Your task to perform on an android device: Do I have any events tomorrow? Image 0: 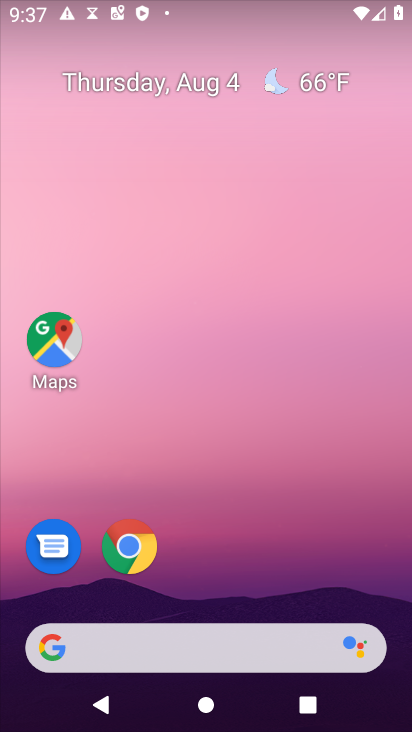
Step 0: press home button
Your task to perform on an android device: Do I have any events tomorrow? Image 1: 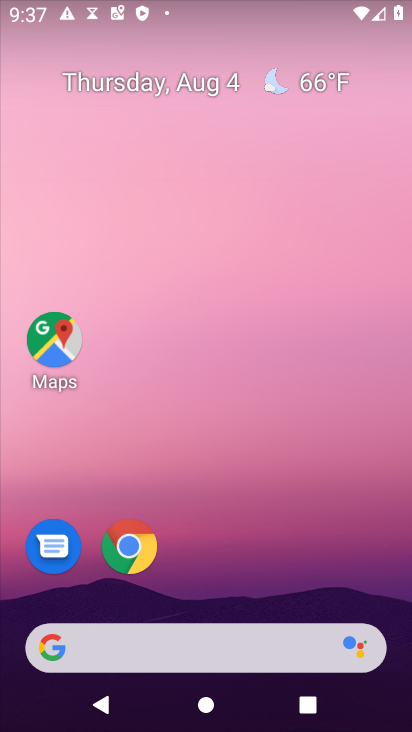
Step 1: drag from (288, 593) to (388, 34)
Your task to perform on an android device: Do I have any events tomorrow? Image 2: 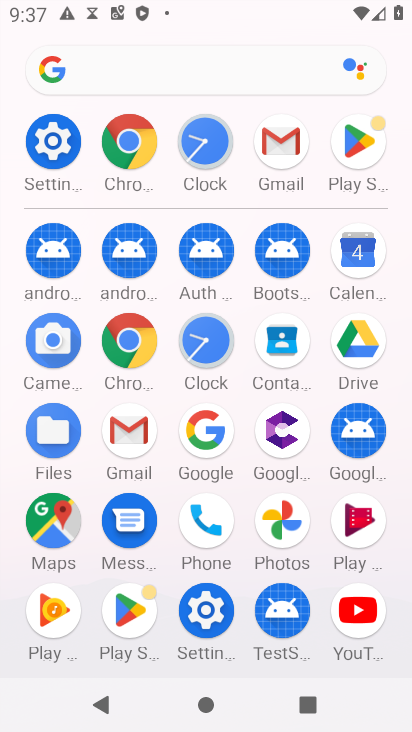
Step 2: click (359, 254)
Your task to perform on an android device: Do I have any events tomorrow? Image 3: 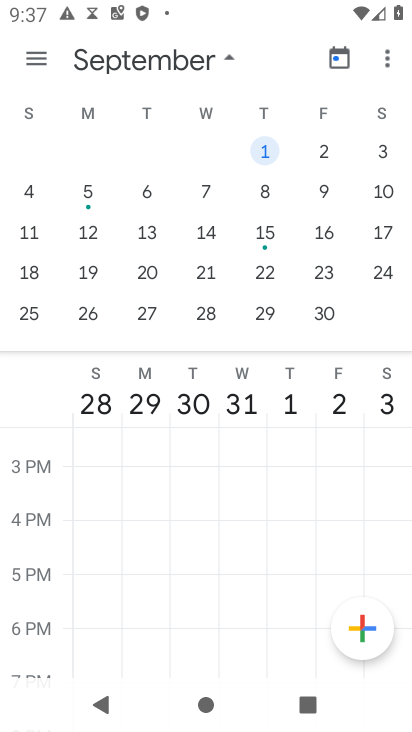
Step 3: drag from (178, 219) to (406, 217)
Your task to perform on an android device: Do I have any events tomorrow? Image 4: 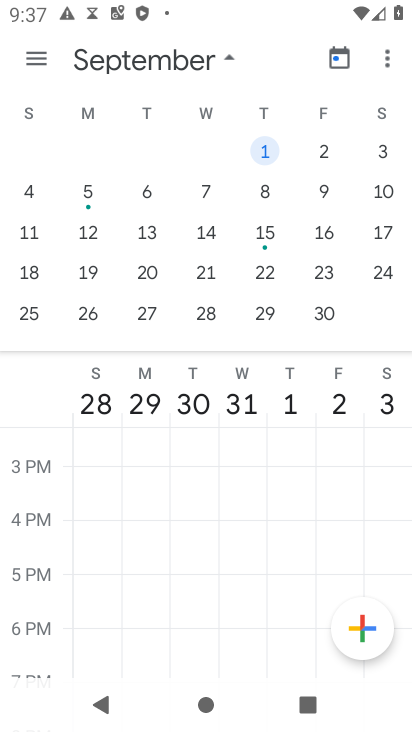
Step 4: drag from (78, 207) to (400, 248)
Your task to perform on an android device: Do I have any events tomorrow? Image 5: 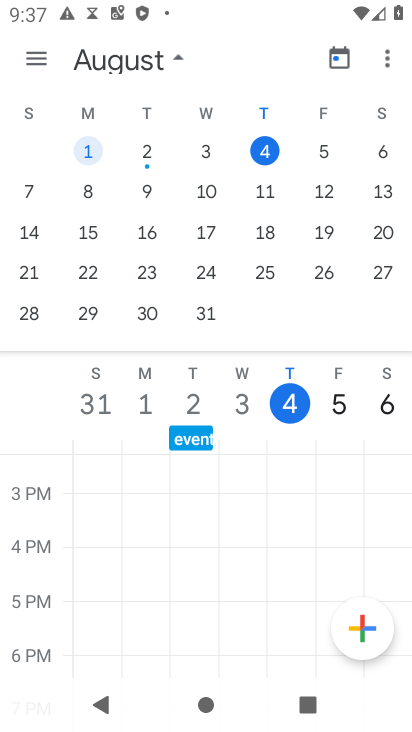
Step 5: click (327, 158)
Your task to perform on an android device: Do I have any events tomorrow? Image 6: 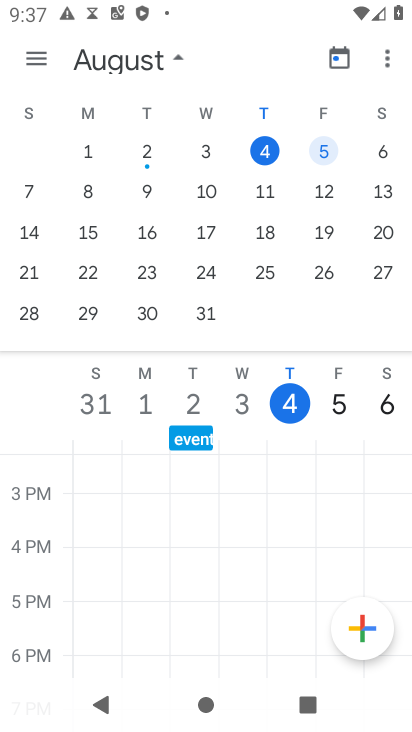
Step 6: task complete